Your task to perform on an android device: Go to wifi settings Image 0: 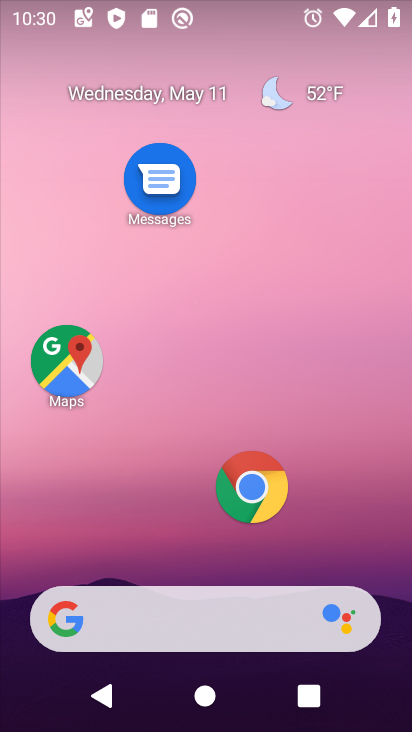
Step 0: drag from (185, 541) to (243, 144)
Your task to perform on an android device: Go to wifi settings Image 1: 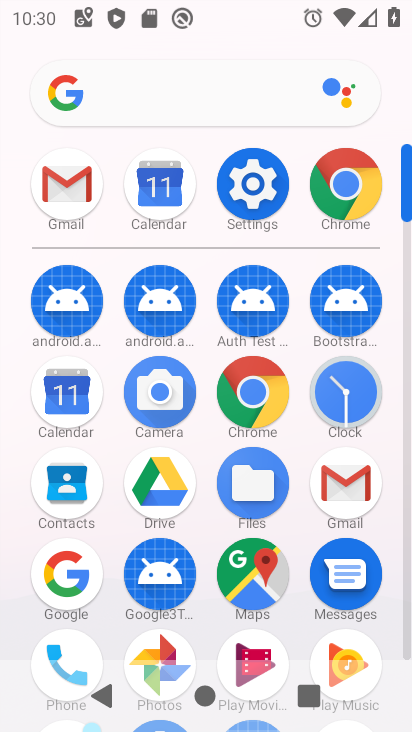
Step 1: click (250, 186)
Your task to perform on an android device: Go to wifi settings Image 2: 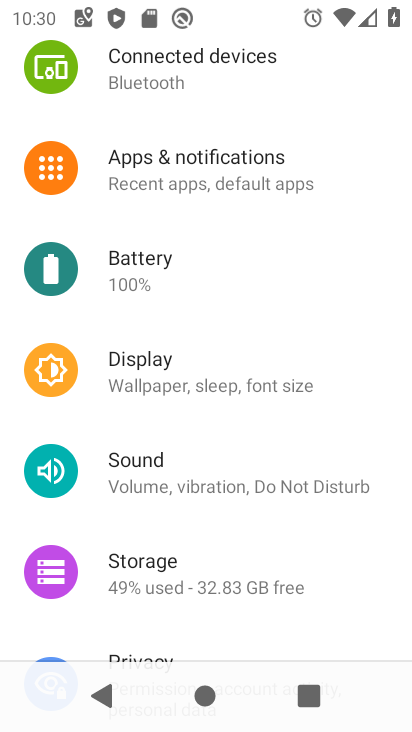
Step 2: drag from (250, 187) to (242, 596)
Your task to perform on an android device: Go to wifi settings Image 3: 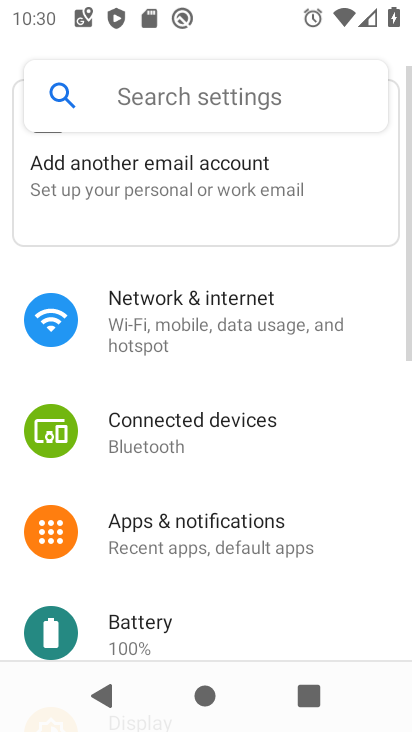
Step 3: click (206, 286)
Your task to perform on an android device: Go to wifi settings Image 4: 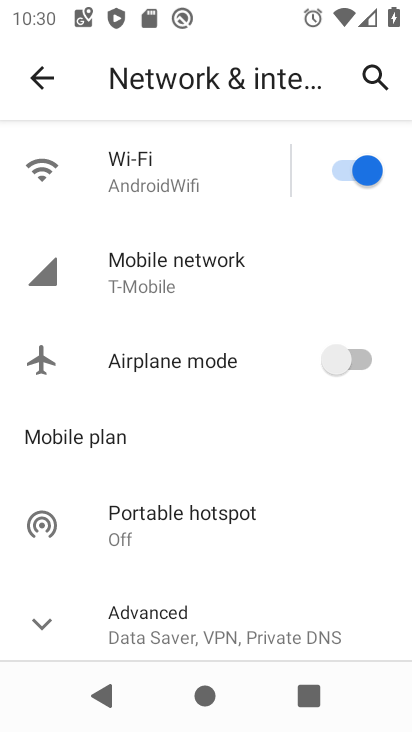
Step 4: click (189, 157)
Your task to perform on an android device: Go to wifi settings Image 5: 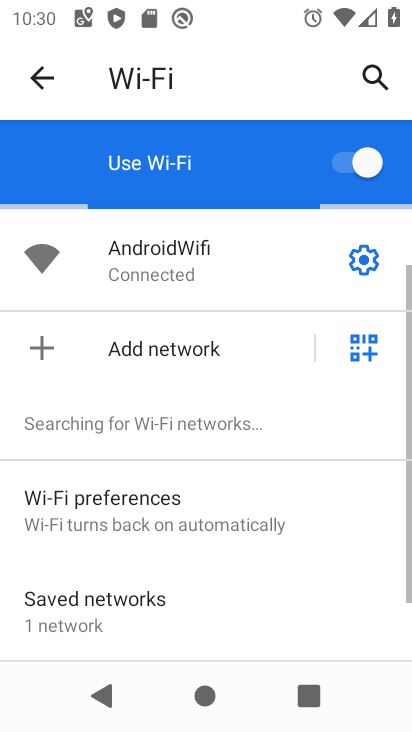
Step 5: task complete